Your task to perform on an android device: turn off sleep mode Image 0: 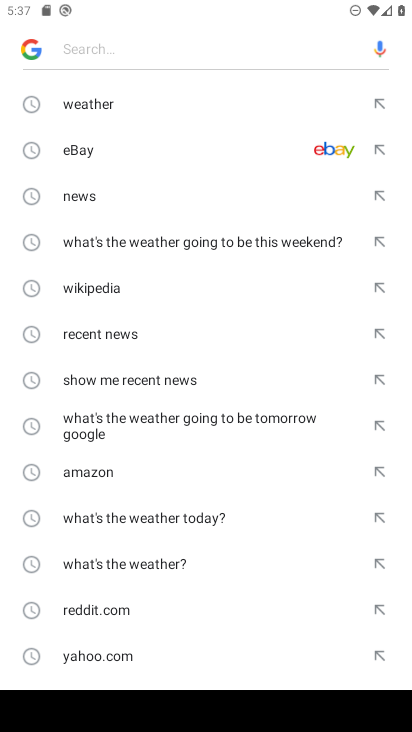
Step 0: press home button
Your task to perform on an android device: turn off sleep mode Image 1: 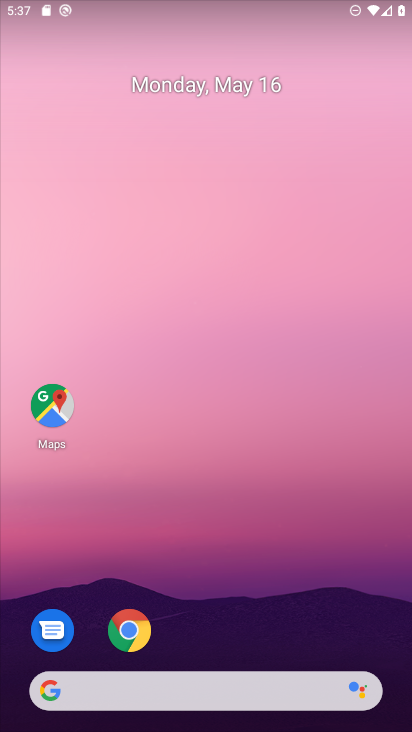
Step 1: drag from (287, 603) to (313, 150)
Your task to perform on an android device: turn off sleep mode Image 2: 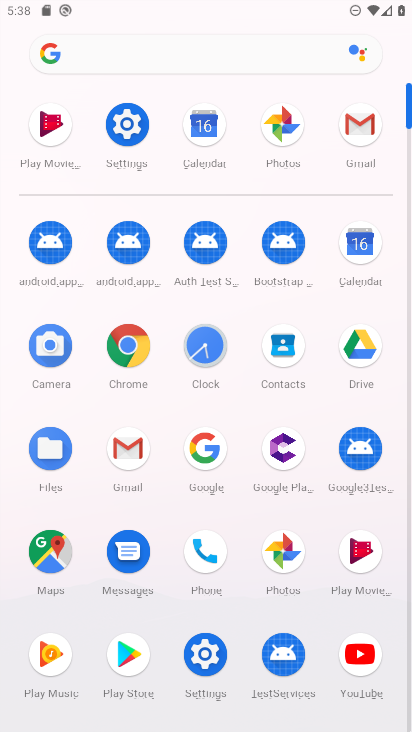
Step 2: click (202, 646)
Your task to perform on an android device: turn off sleep mode Image 3: 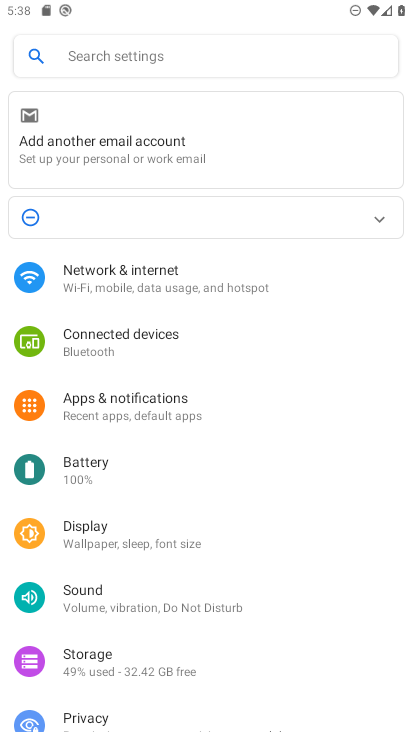
Step 3: click (66, 510)
Your task to perform on an android device: turn off sleep mode Image 4: 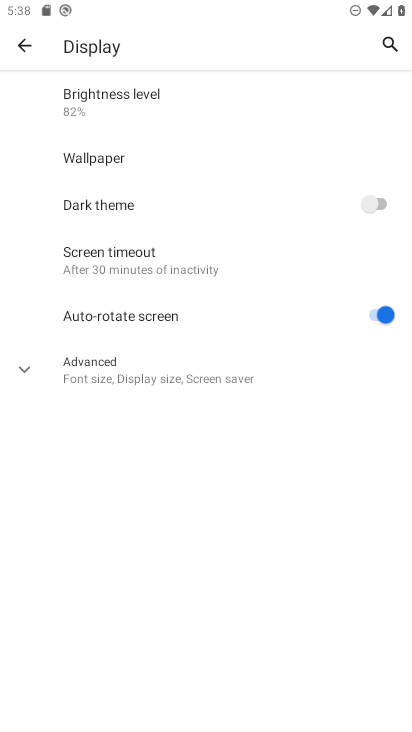
Step 4: task complete